Your task to perform on an android device: Turn off the flashlight Image 0: 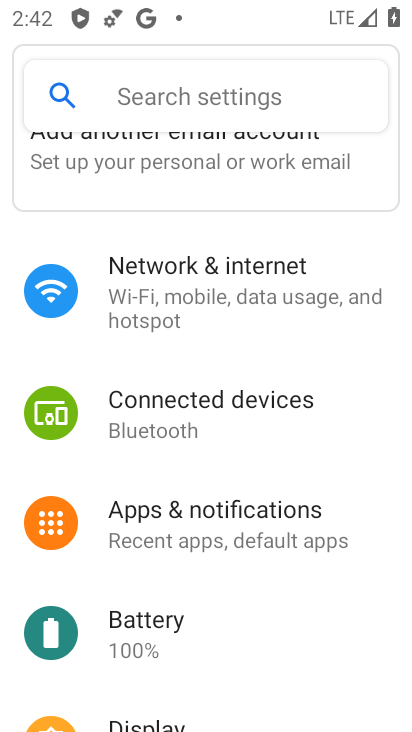
Step 0: drag from (90, 660) to (75, 399)
Your task to perform on an android device: Turn off the flashlight Image 1: 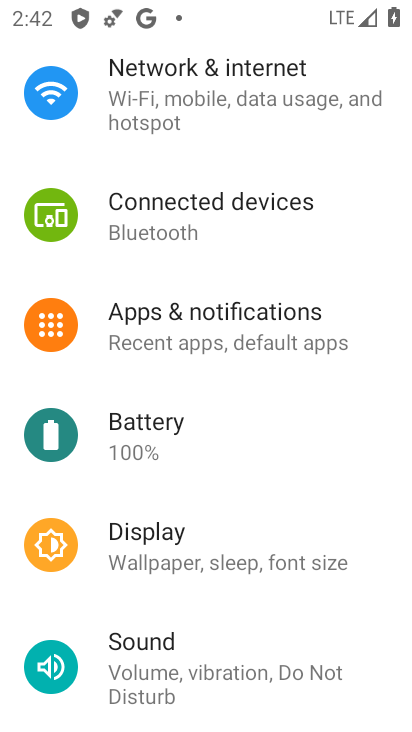
Step 1: task complete